Your task to perform on an android device: Open display settings Image 0: 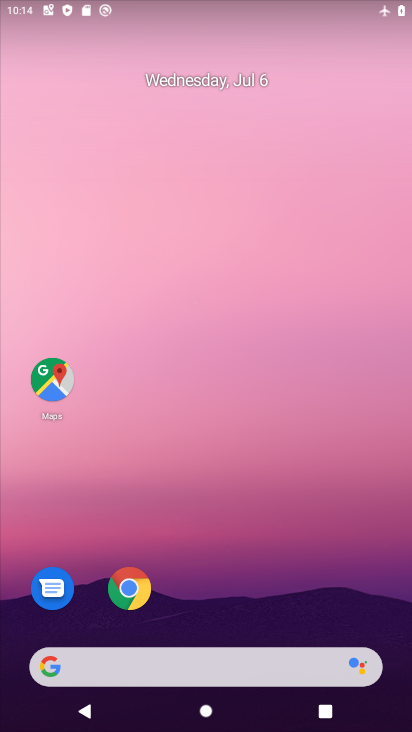
Step 0: drag from (236, 646) to (271, 162)
Your task to perform on an android device: Open display settings Image 1: 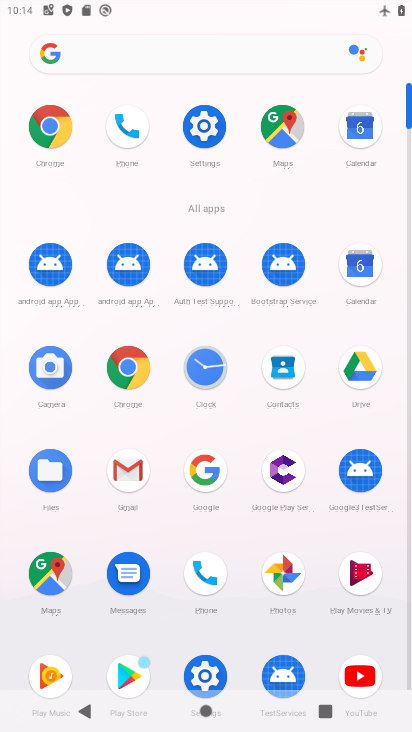
Step 1: click (206, 121)
Your task to perform on an android device: Open display settings Image 2: 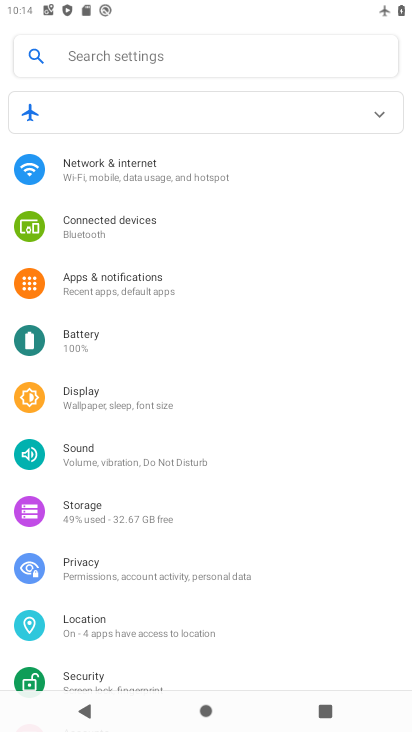
Step 2: click (138, 386)
Your task to perform on an android device: Open display settings Image 3: 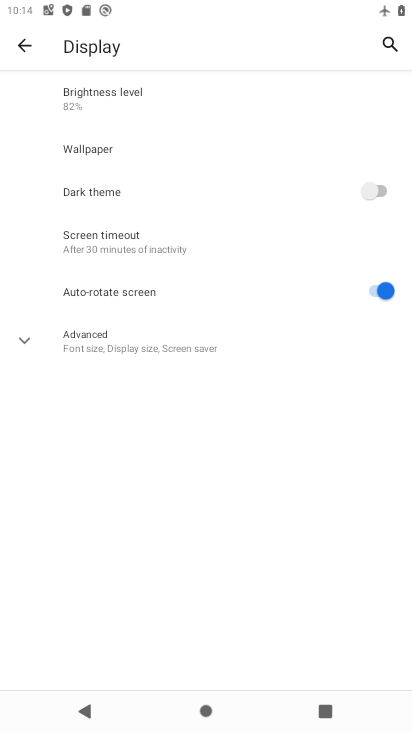
Step 3: task complete